Your task to perform on an android device: Open battery settings Image 0: 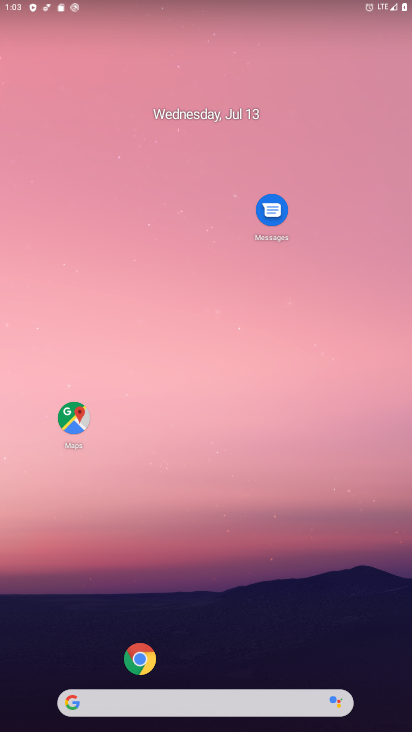
Step 0: drag from (89, 583) to (283, 73)
Your task to perform on an android device: Open battery settings Image 1: 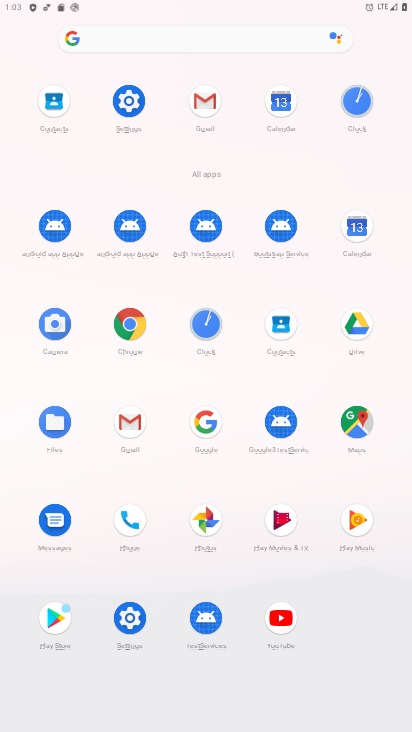
Step 1: click (142, 623)
Your task to perform on an android device: Open battery settings Image 2: 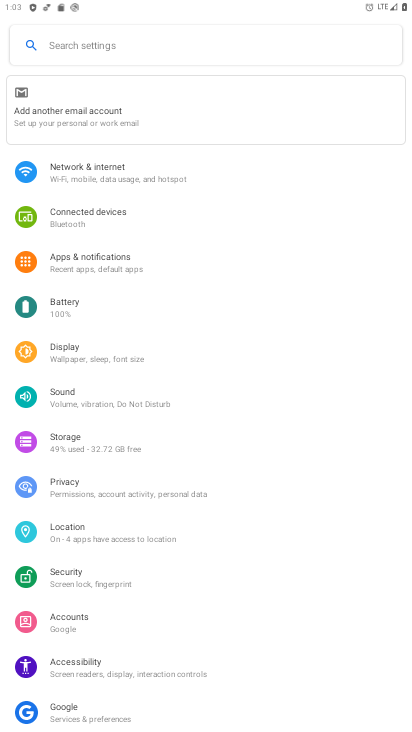
Step 2: click (96, 310)
Your task to perform on an android device: Open battery settings Image 3: 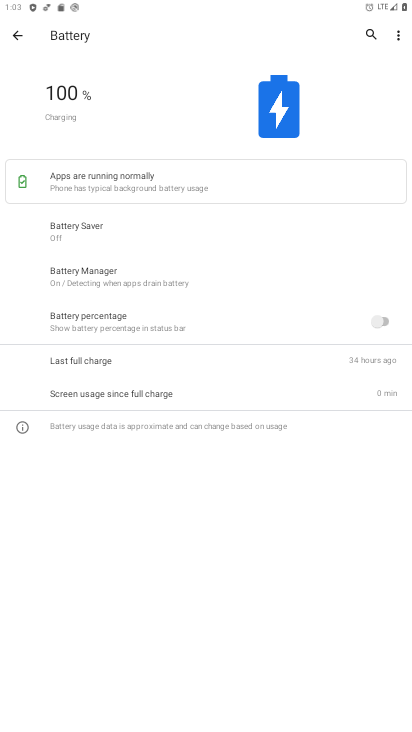
Step 3: task complete